Your task to perform on an android device: open app "ZOOM Cloud Meetings" (install if not already installed) Image 0: 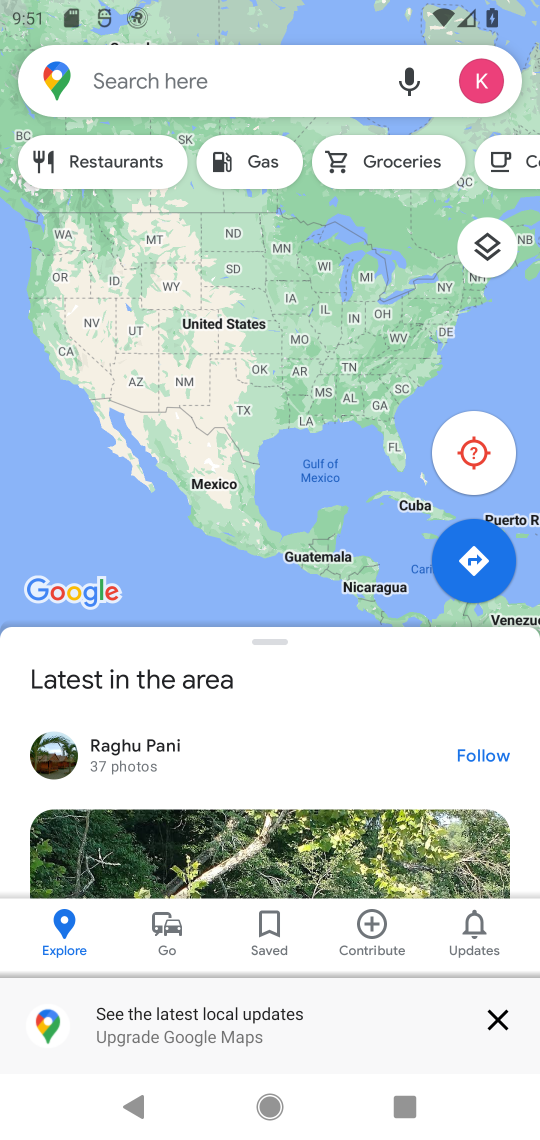
Step 0: press home button
Your task to perform on an android device: open app "ZOOM Cloud Meetings" (install if not already installed) Image 1: 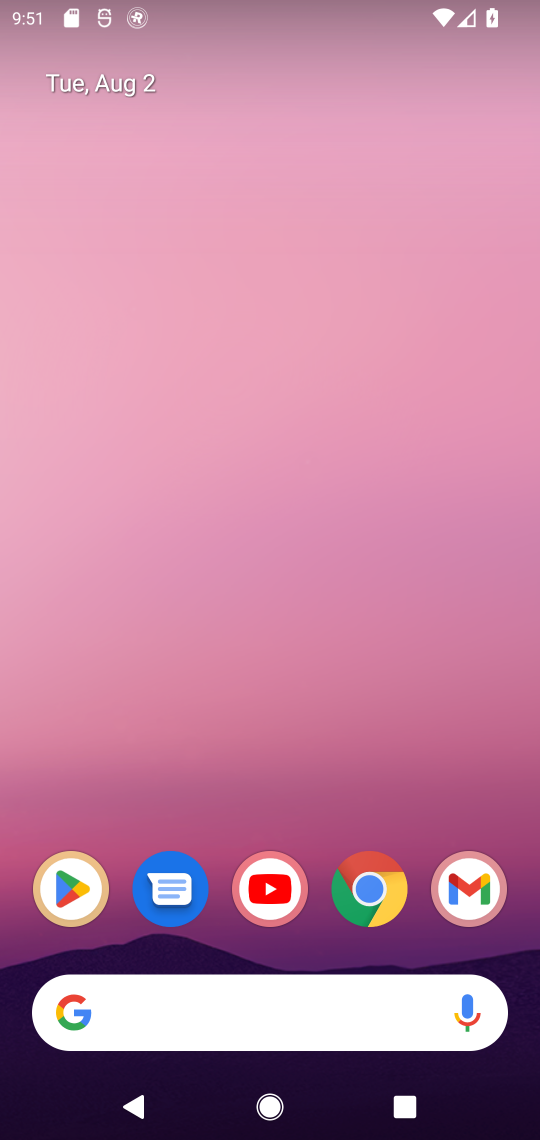
Step 1: click (77, 889)
Your task to perform on an android device: open app "ZOOM Cloud Meetings" (install if not already installed) Image 2: 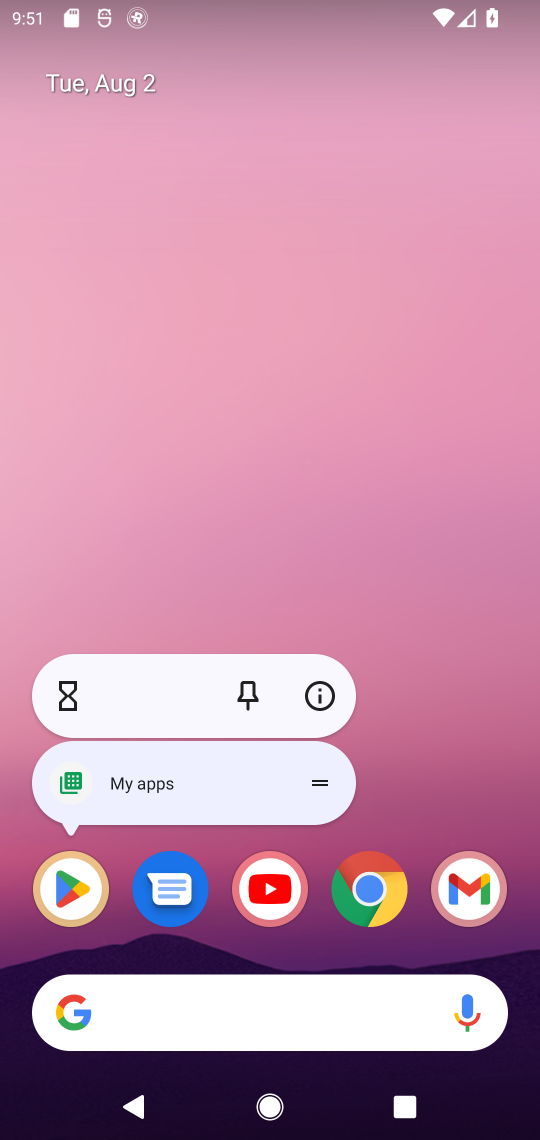
Step 2: click (77, 889)
Your task to perform on an android device: open app "ZOOM Cloud Meetings" (install if not already installed) Image 3: 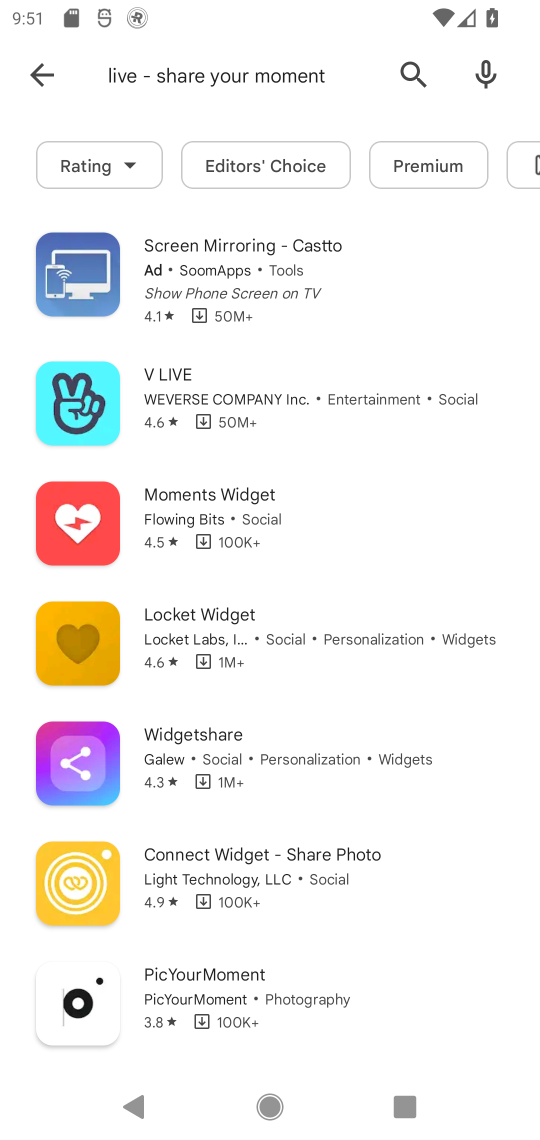
Step 3: click (406, 73)
Your task to perform on an android device: open app "ZOOM Cloud Meetings" (install if not already installed) Image 4: 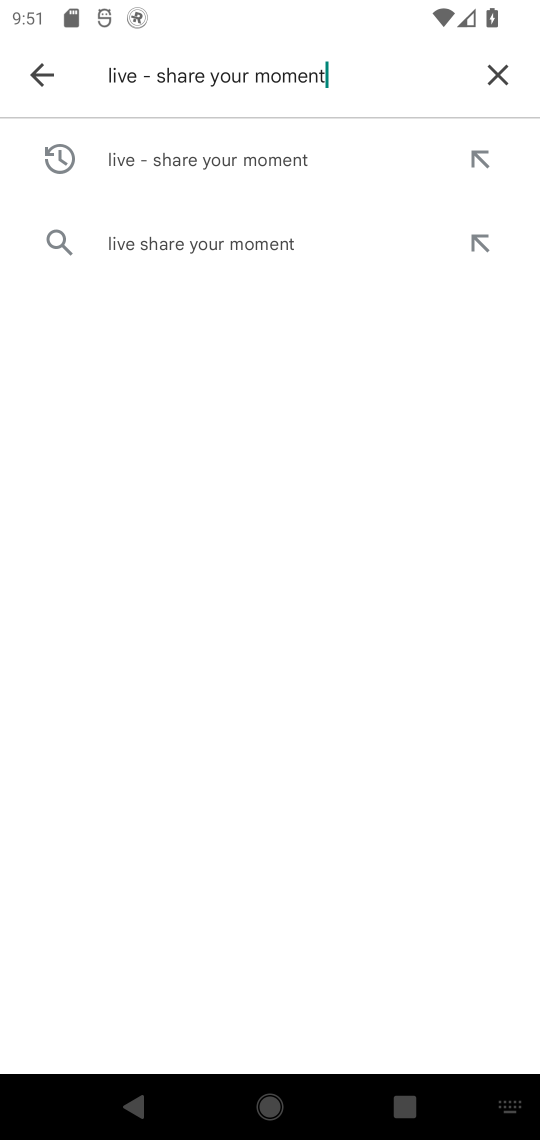
Step 4: click (501, 62)
Your task to perform on an android device: open app "ZOOM Cloud Meetings" (install if not already installed) Image 5: 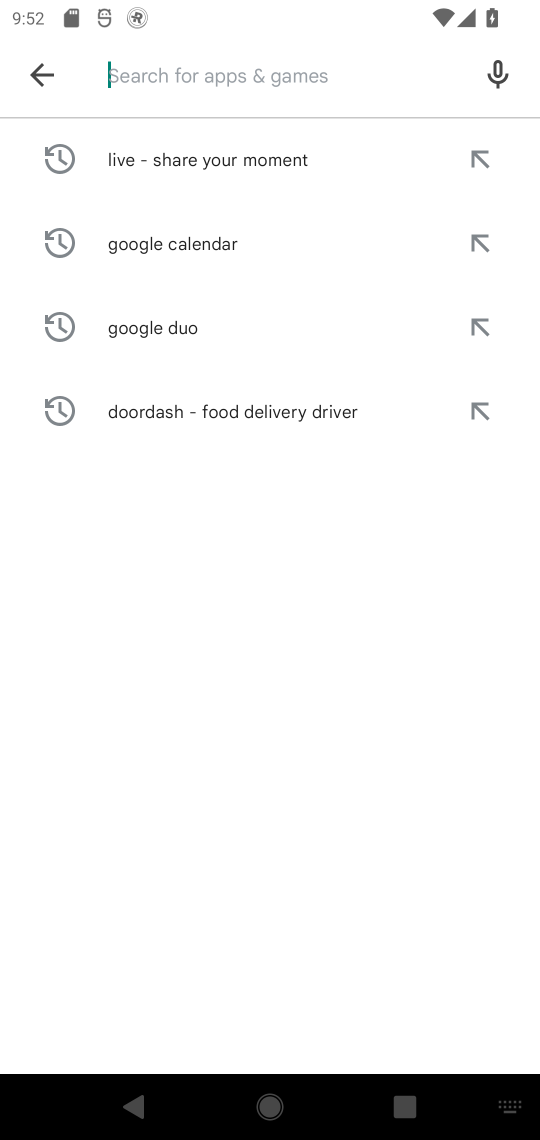
Step 5: type "ZOOM Cloud Meetings"
Your task to perform on an android device: open app "ZOOM Cloud Meetings" (install if not already installed) Image 6: 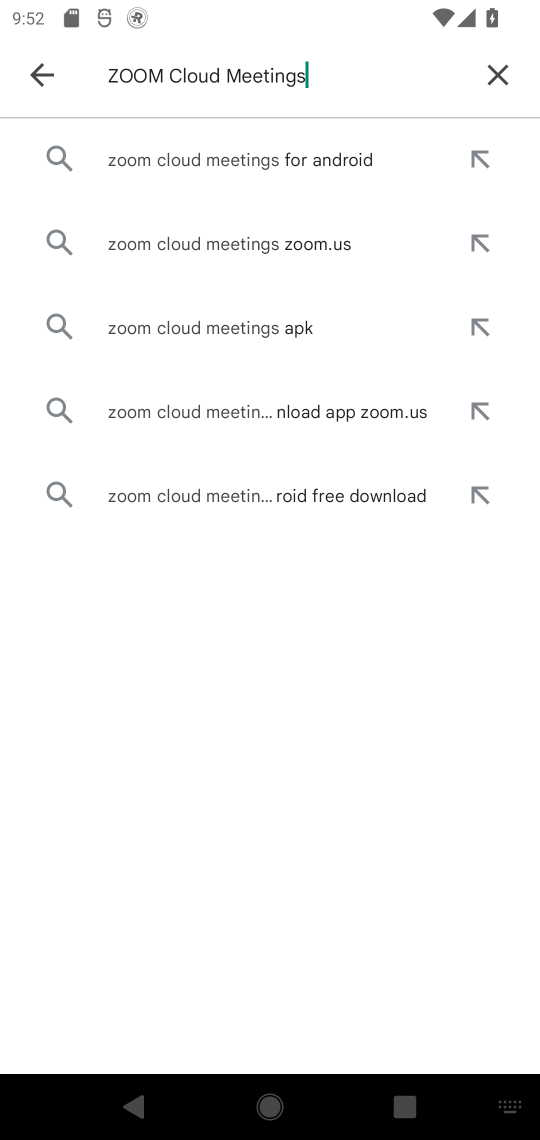
Step 6: click (232, 165)
Your task to perform on an android device: open app "ZOOM Cloud Meetings" (install if not already installed) Image 7: 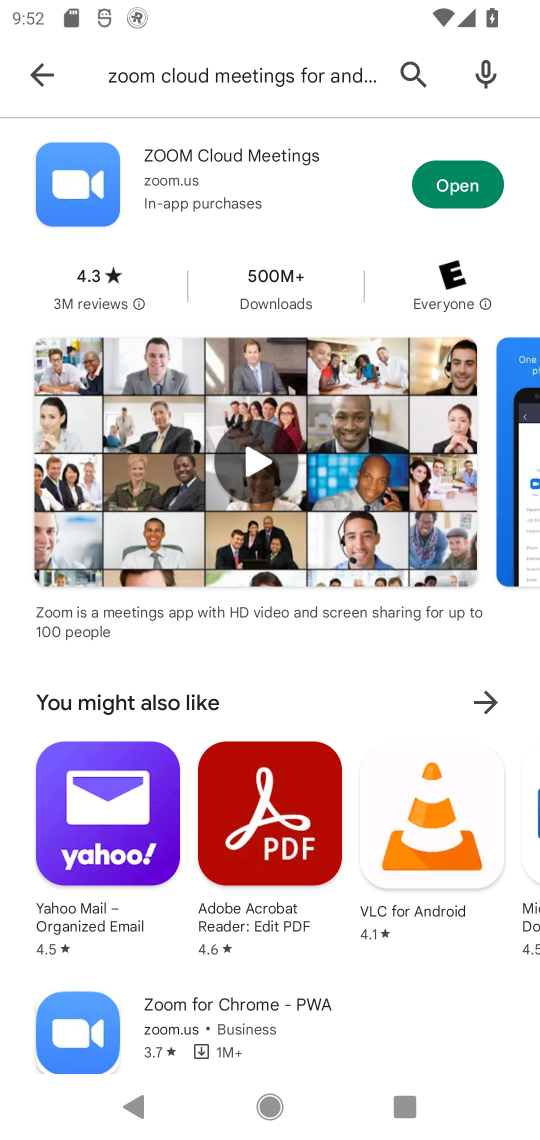
Step 7: click (445, 189)
Your task to perform on an android device: open app "ZOOM Cloud Meetings" (install if not already installed) Image 8: 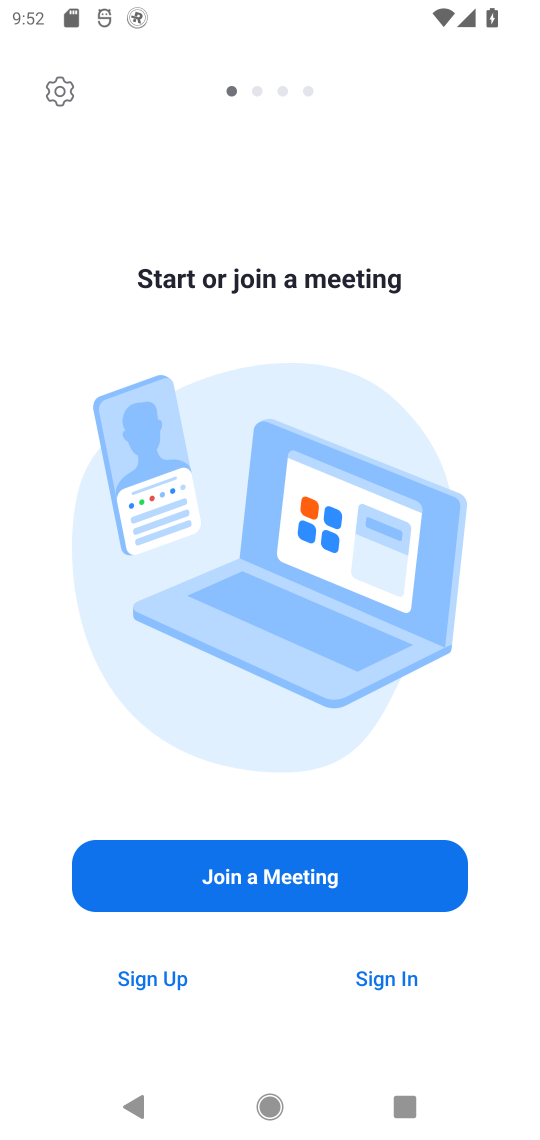
Step 8: task complete